Your task to perform on an android device: add a contact in the contacts app Image 0: 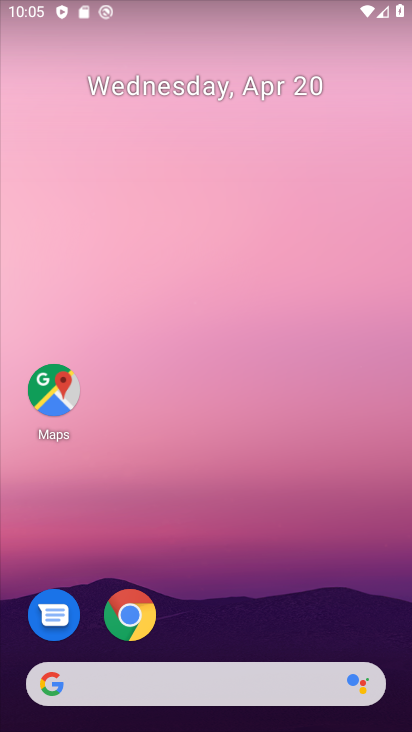
Step 0: drag from (261, 468) to (256, 198)
Your task to perform on an android device: add a contact in the contacts app Image 1: 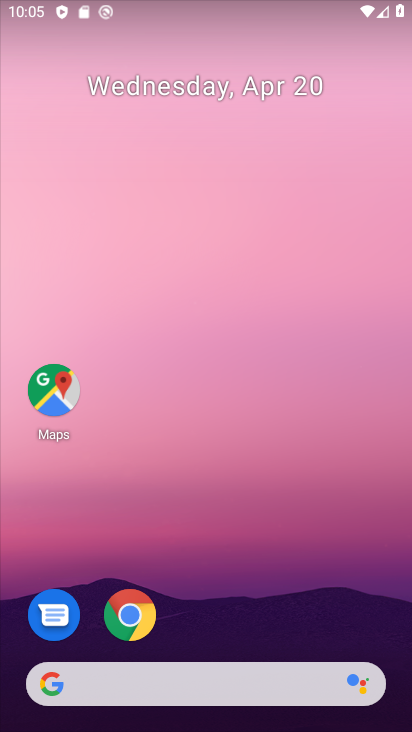
Step 1: drag from (187, 619) to (215, 65)
Your task to perform on an android device: add a contact in the contacts app Image 2: 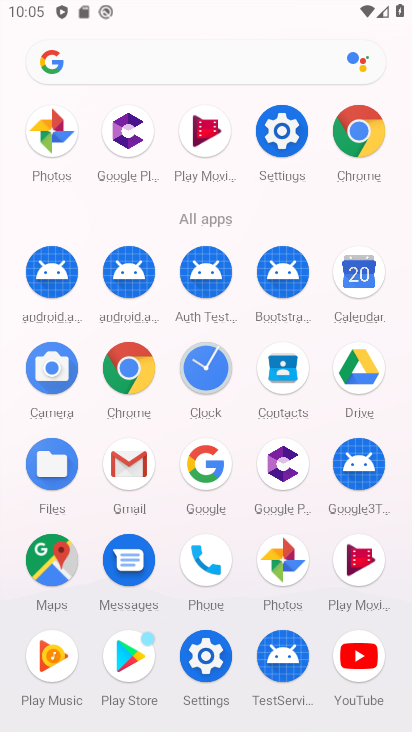
Step 2: click (278, 376)
Your task to perform on an android device: add a contact in the contacts app Image 3: 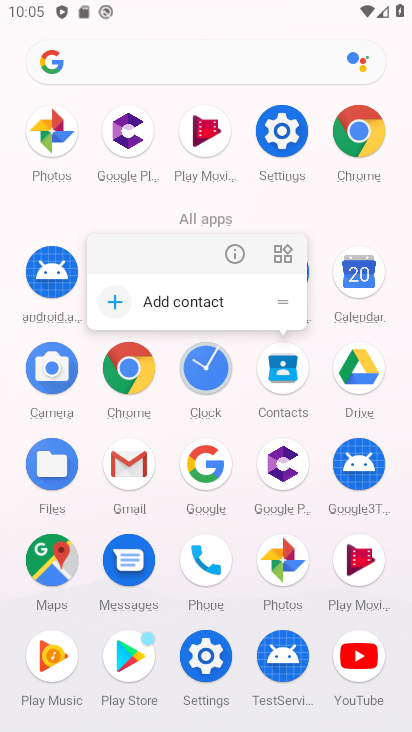
Step 3: click (280, 371)
Your task to perform on an android device: add a contact in the contacts app Image 4: 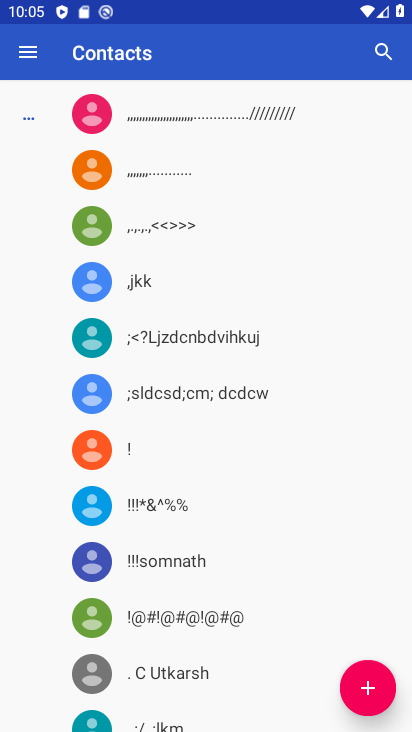
Step 4: click (359, 681)
Your task to perform on an android device: add a contact in the contacts app Image 5: 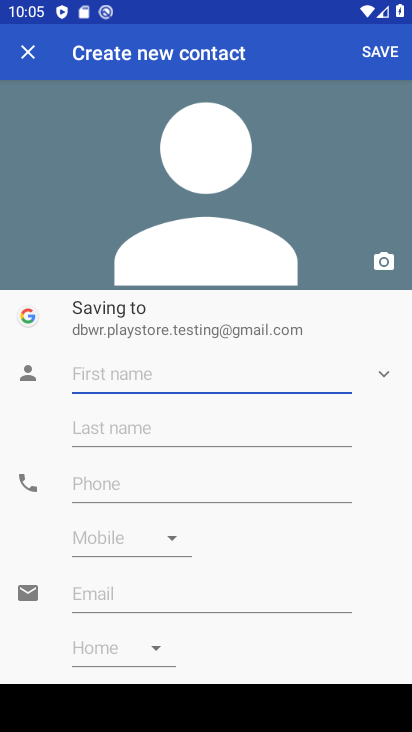
Step 5: type "ddfghgfd"
Your task to perform on an android device: add a contact in the contacts app Image 6: 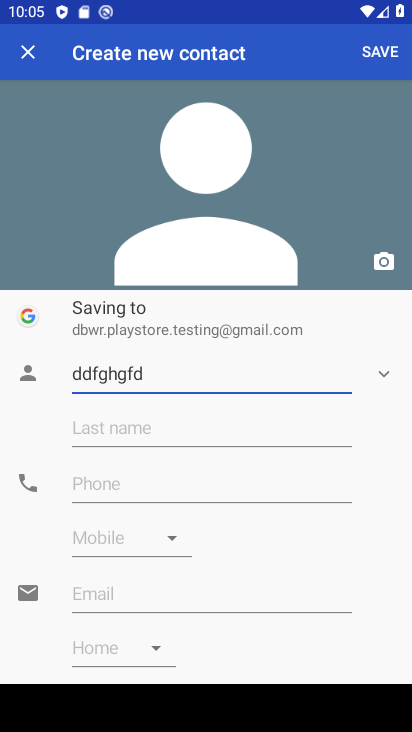
Step 6: click (147, 475)
Your task to perform on an android device: add a contact in the contacts app Image 7: 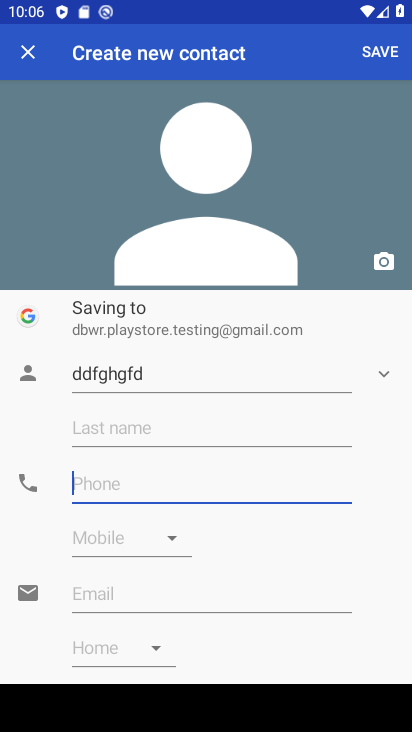
Step 7: type "67899876556789"
Your task to perform on an android device: add a contact in the contacts app Image 8: 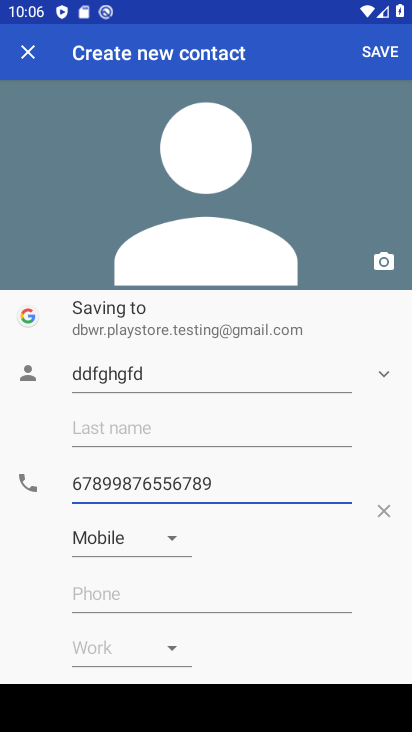
Step 8: click (389, 47)
Your task to perform on an android device: add a contact in the contacts app Image 9: 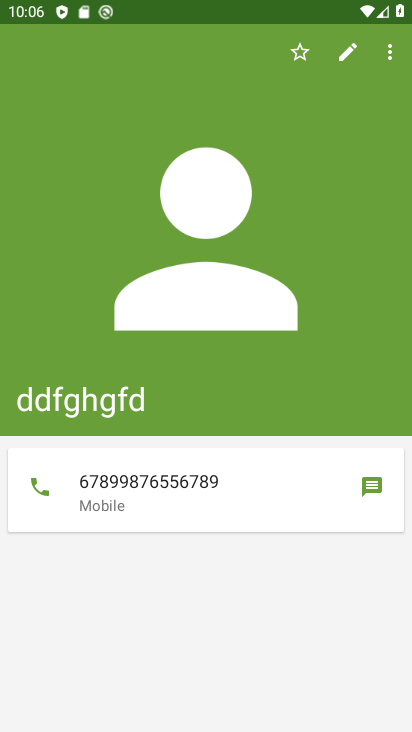
Step 9: task complete